Your task to perform on an android device: Open ESPN.com Image 0: 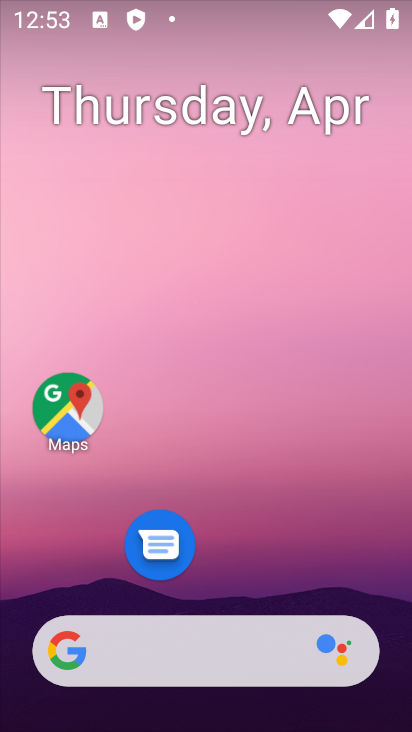
Step 0: drag from (245, 562) to (312, 227)
Your task to perform on an android device: Open ESPN.com Image 1: 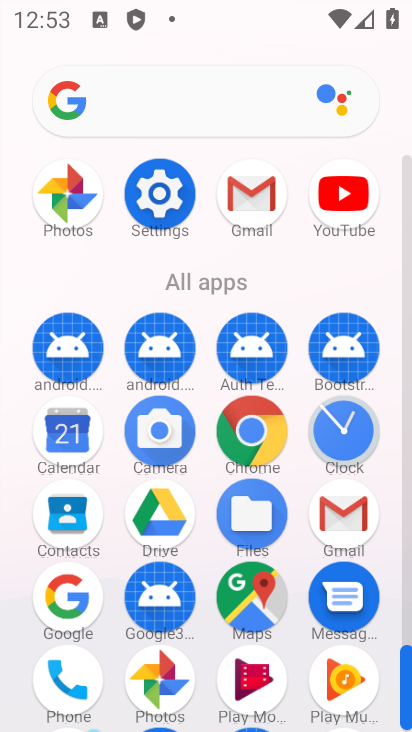
Step 1: click (242, 428)
Your task to perform on an android device: Open ESPN.com Image 2: 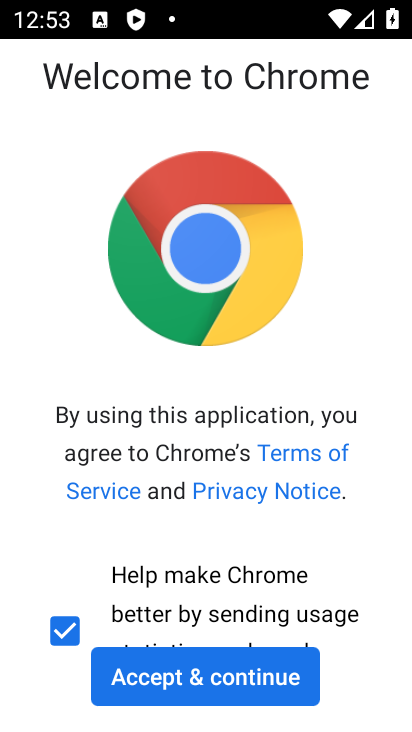
Step 2: click (263, 678)
Your task to perform on an android device: Open ESPN.com Image 3: 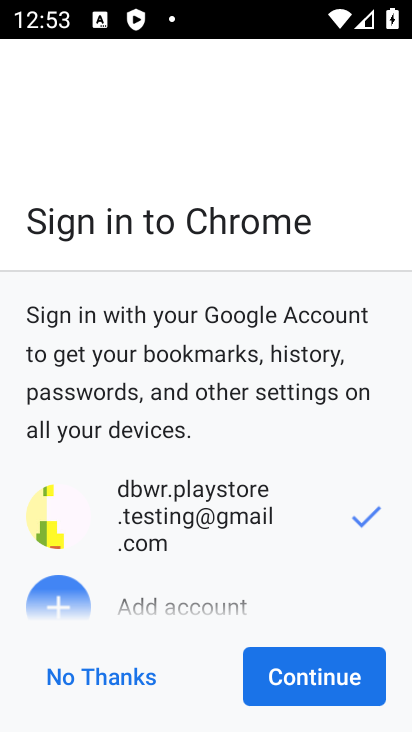
Step 3: click (324, 682)
Your task to perform on an android device: Open ESPN.com Image 4: 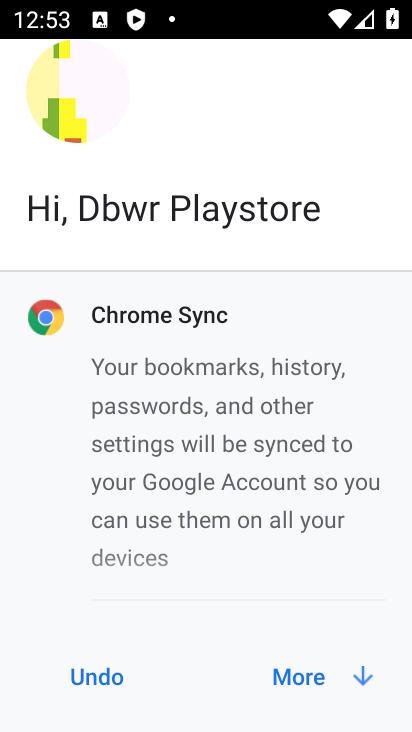
Step 4: click (322, 668)
Your task to perform on an android device: Open ESPN.com Image 5: 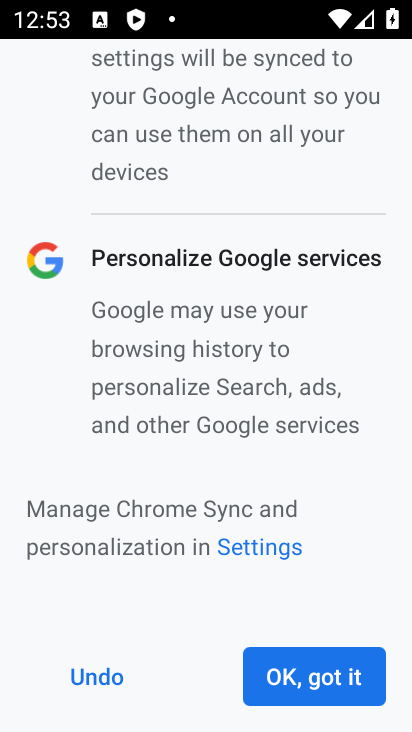
Step 5: click (346, 660)
Your task to perform on an android device: Open ESPN.com Image 6: 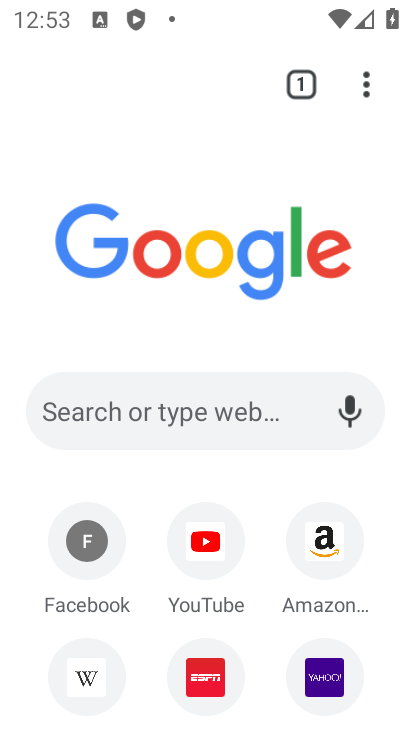
Step 6: drag from (168, 553) to (195, 224)
Your task to perform on an android device: Open ESPN.com Image 7: 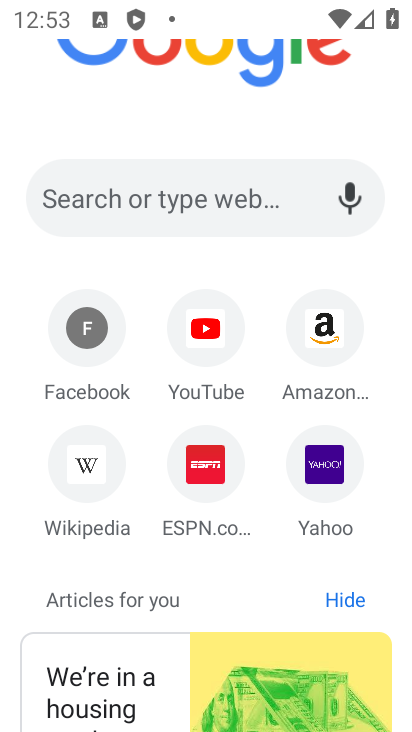
Step 7: click (225, 475)
Your task to perform on an android device: Open ESPN.com Image 8: 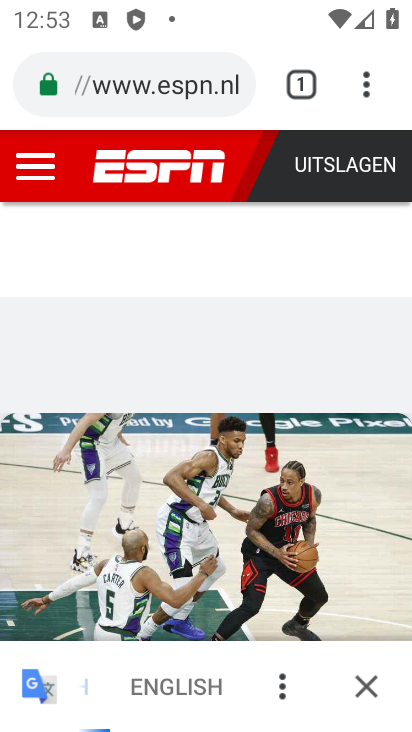
Step 8: task complete